Your task to perform on an android device: See recent photos Image 0: 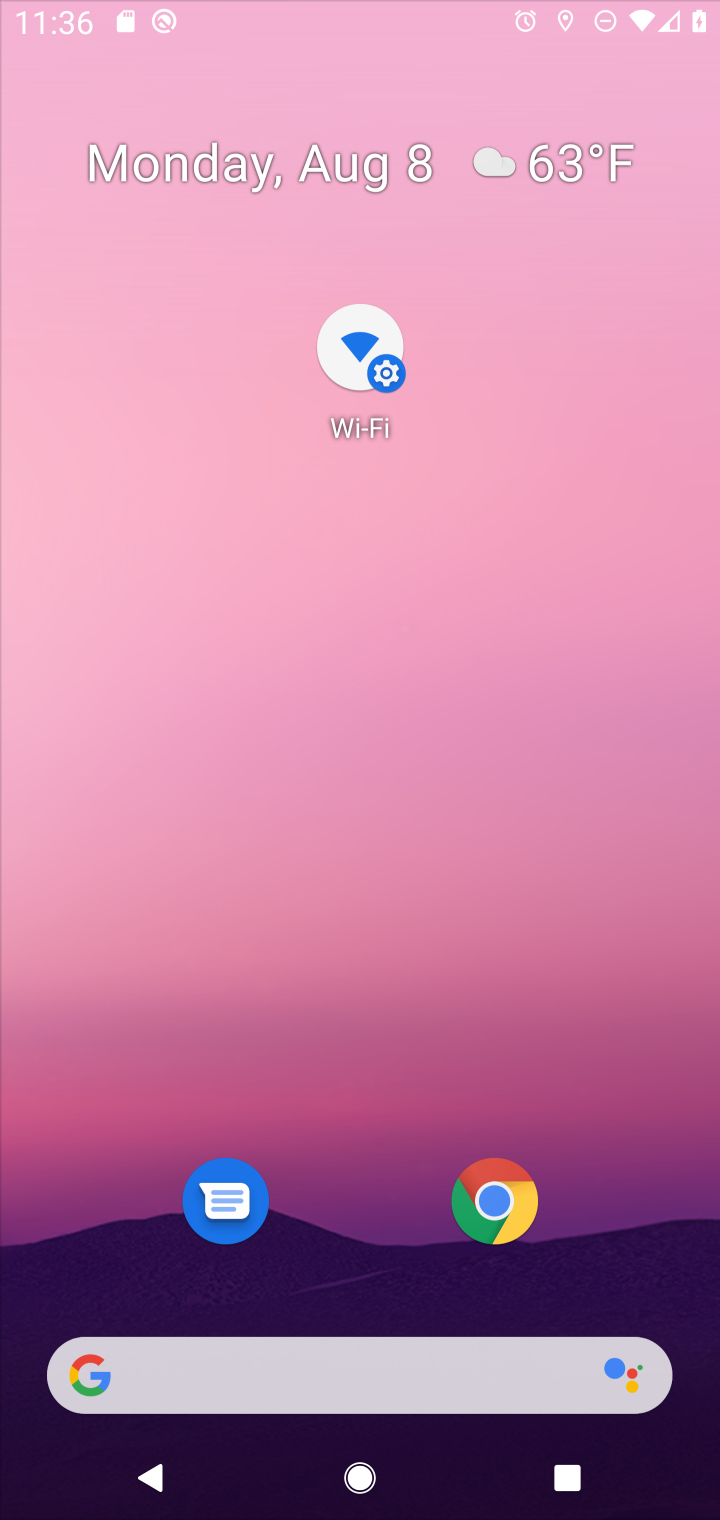
Step 0: press home button
Your task to perform on an android device: See recent photos Image 1: 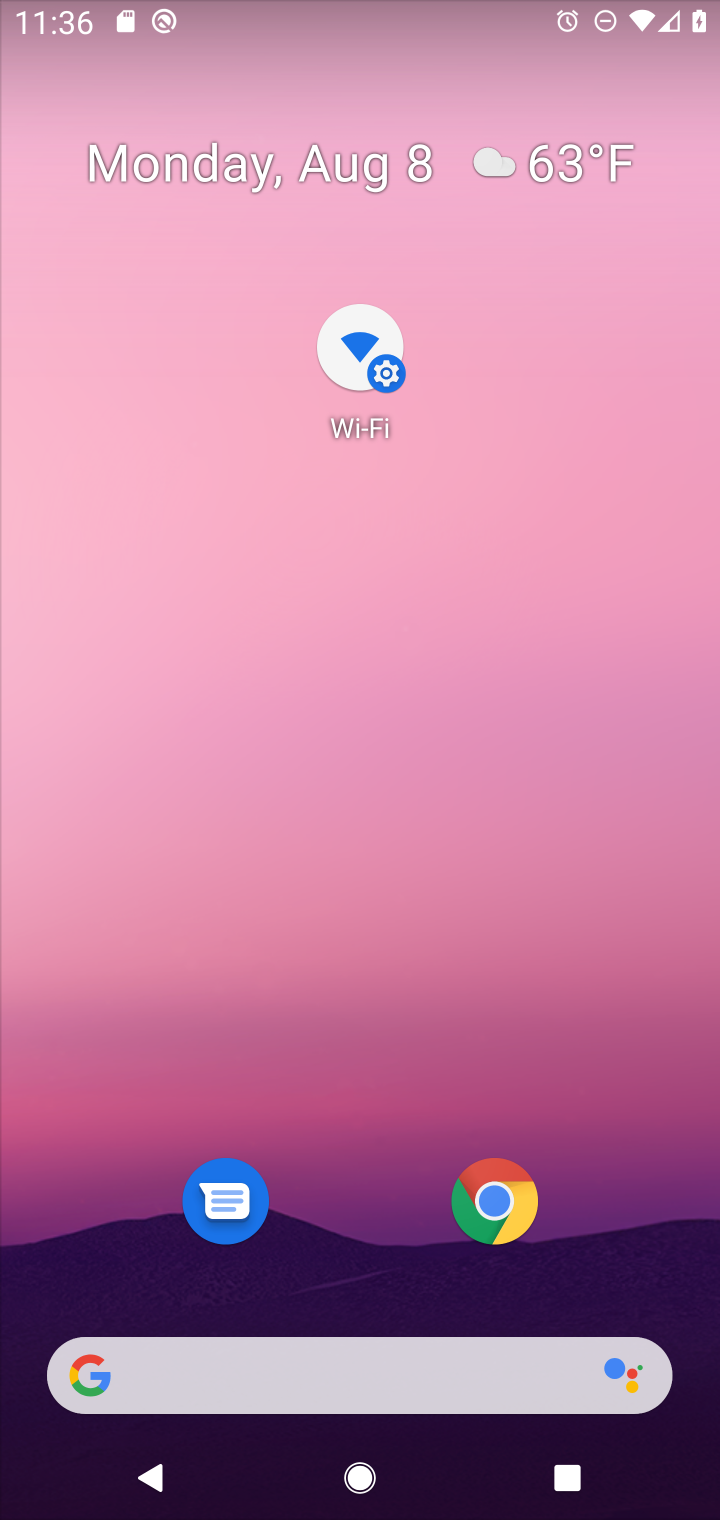
Step 1: drag from (368, 1192) to (481, 232)
Your task to perform on an android device: See recent photos Image 2: 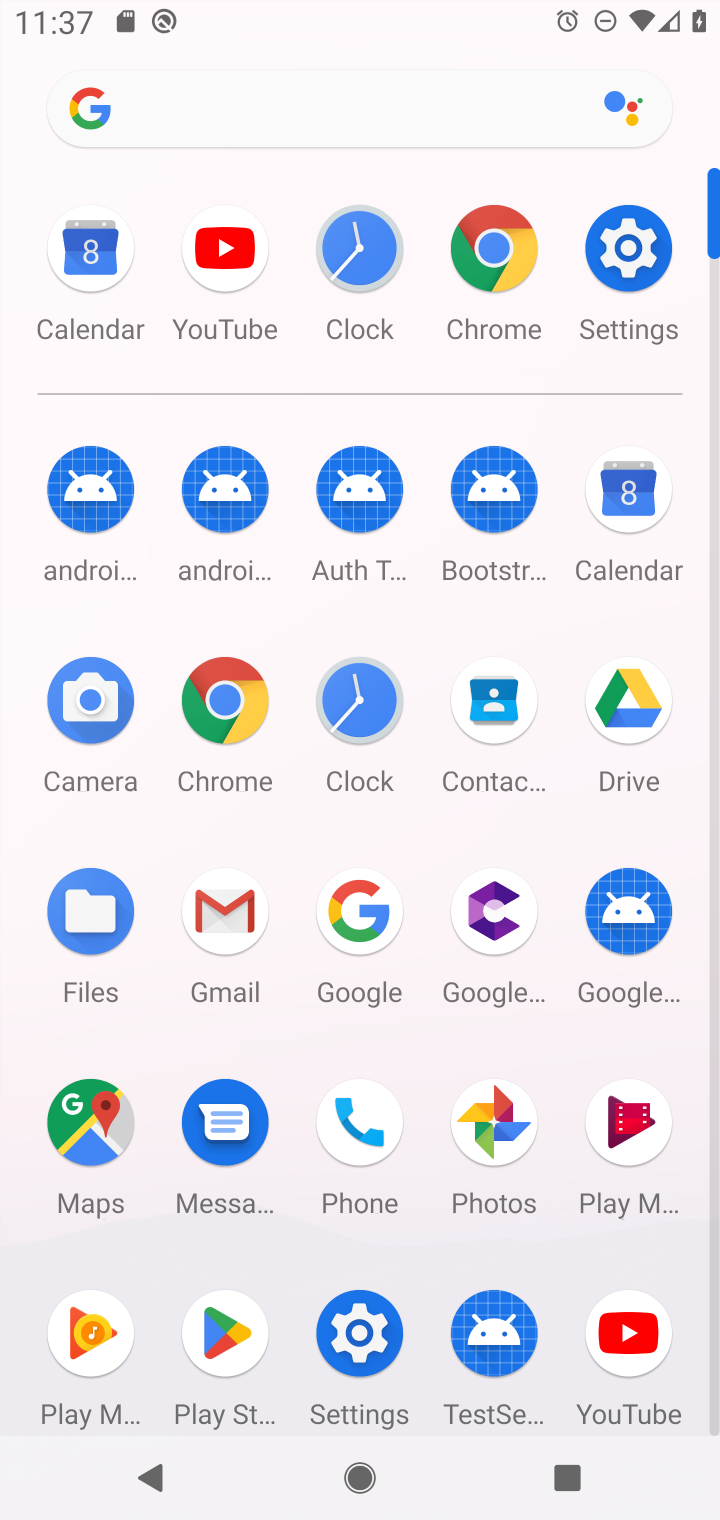
Step 2: click (500, 1115)
Your task to perform on an android device: See recent photos Image 3: 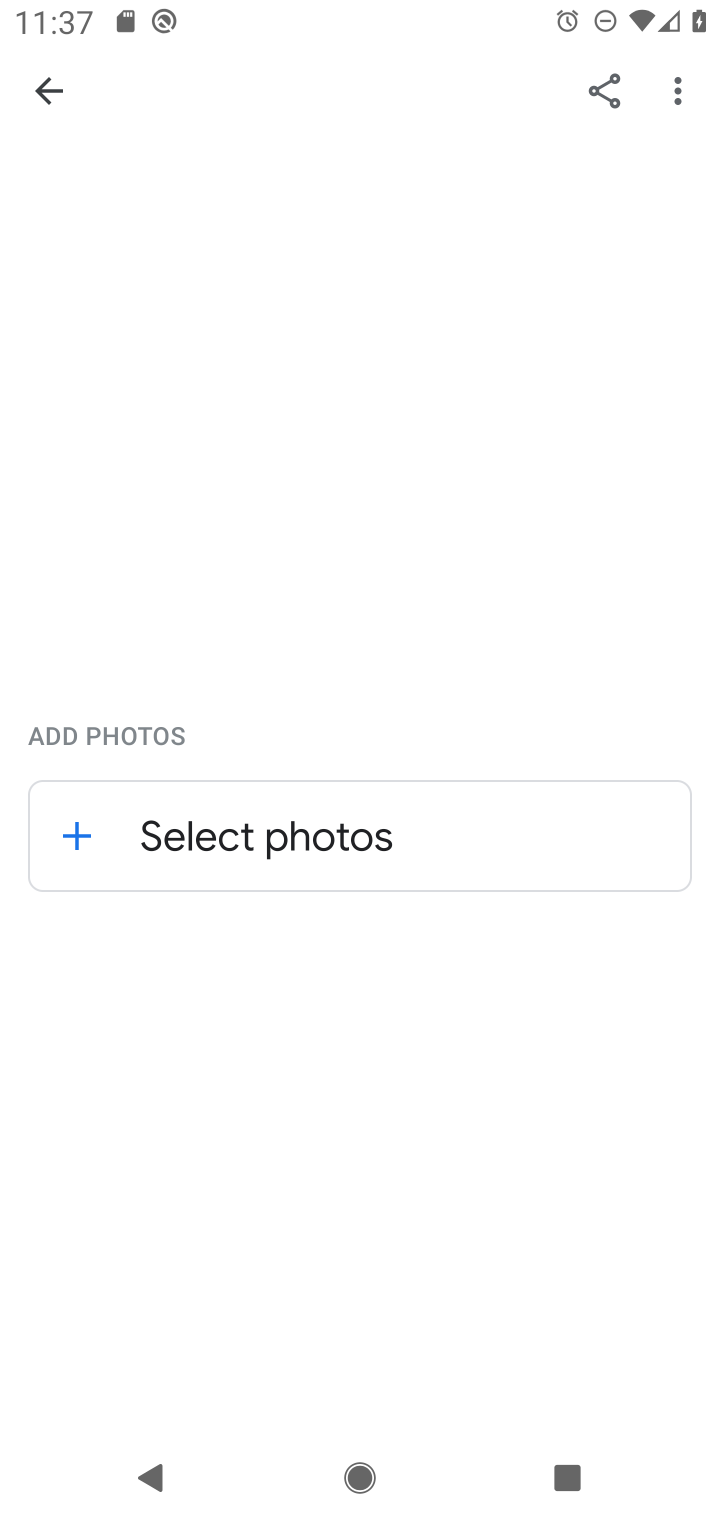
Step 3: task complete